Your task to perform on an android device: Open Maps and search for coffee Image 0: 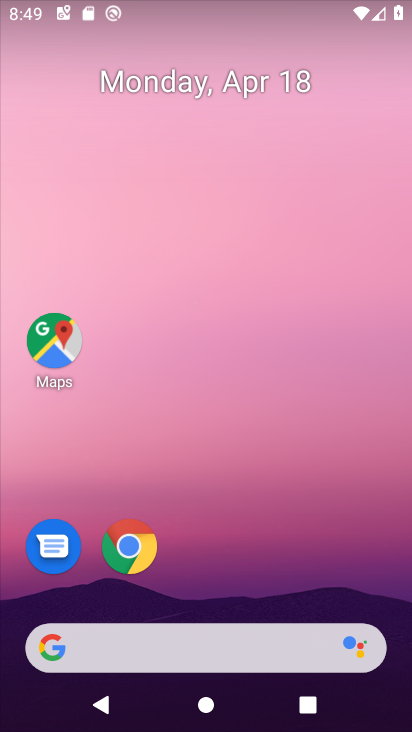
Step 0: click (42, 337)
Your task to perform on an android device: Open Maps and search for coffee Image 1: 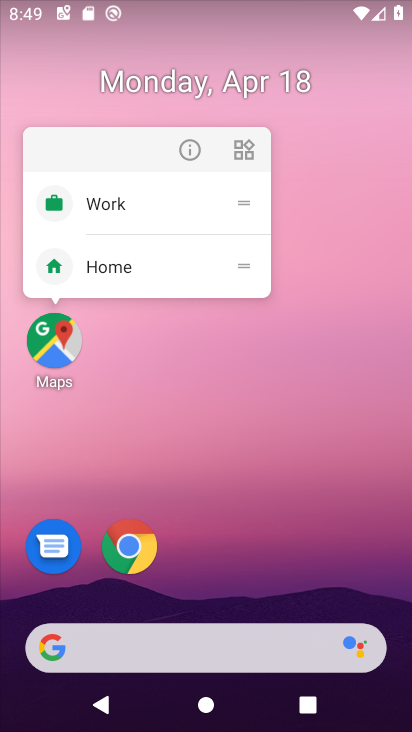
Step 1: click (45, 348)
Your task to perform on an android device: Open Maps and search for coffee Image 2: 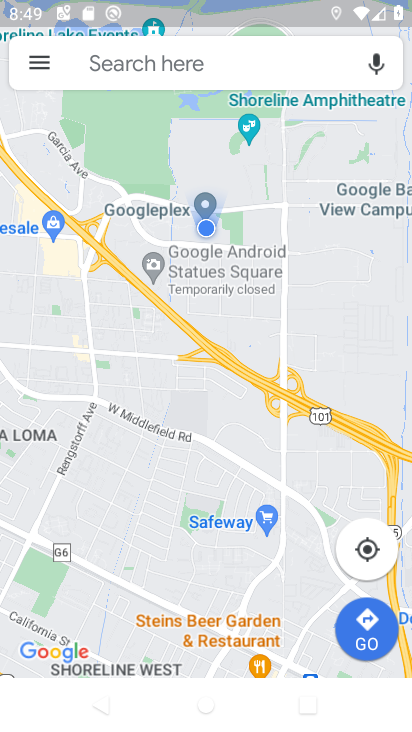
Step 2: click (89, 67)
Your task to perform on an android device: Open Maps and search for coffee Image 3: 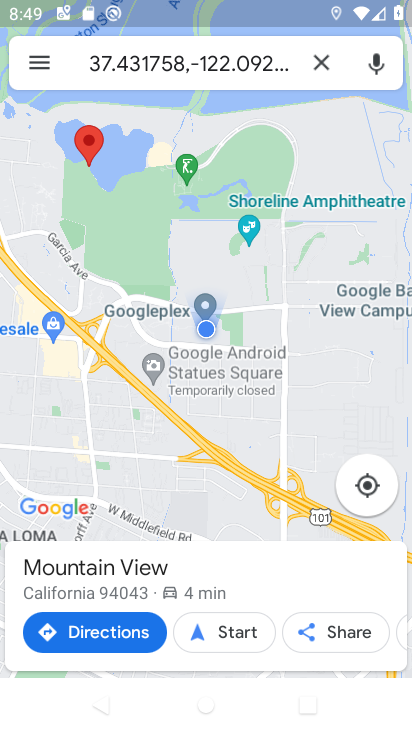
Step 3: click (325, 63)
Your task to perform on an android device: Open Maps and search for coffee Image 4: 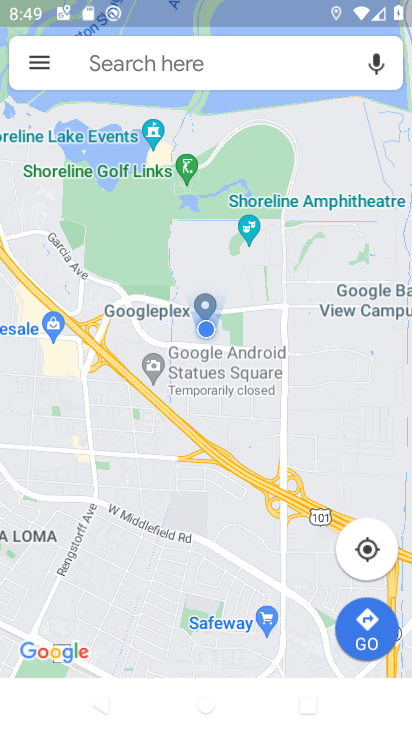
Step 4: click (191, 71)
Your task to perform on an android device: Open Maps and search for coffee Image 5: 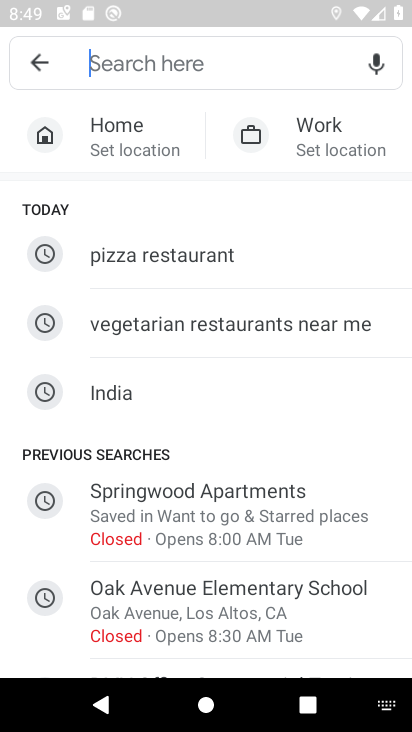
Step 5: type "coffee"
Your task to perform on an android device: Open Maps and search for coffee Image 6: 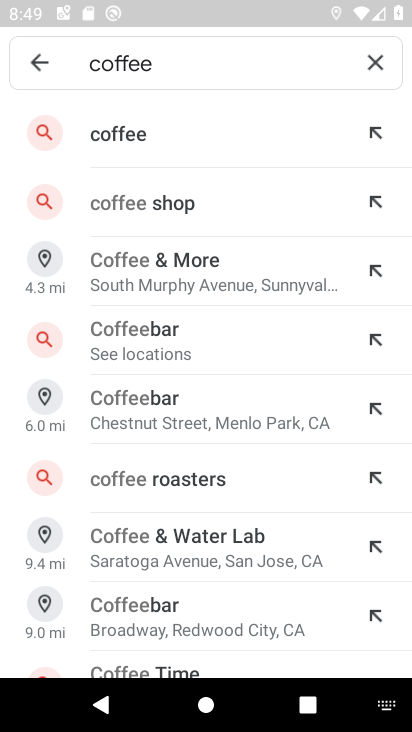
Step 6: click (277, 117)
Your task to perform on an android device: Open Maps and search for coffee Image 7: 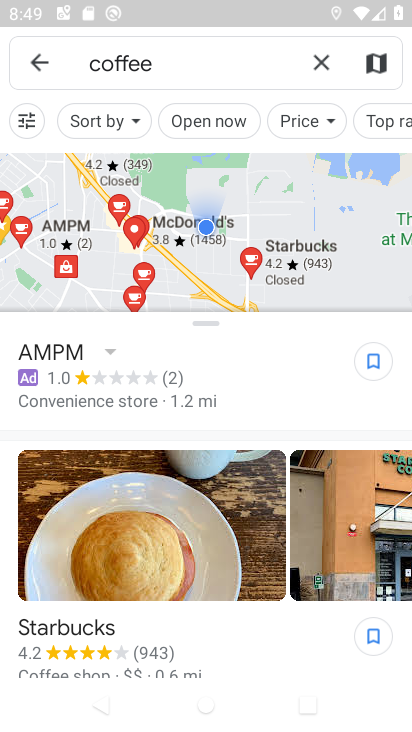
Step 7: task complete